Your task to perform on an android device: Go to battery settings Image 0: 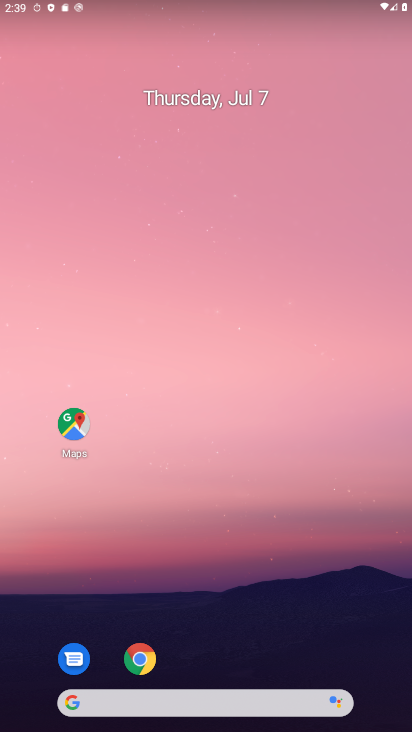
Step 0: drag from (7, 713) to (194, 53)
Your task to perform on an android device: Go to battery settings Image 1: 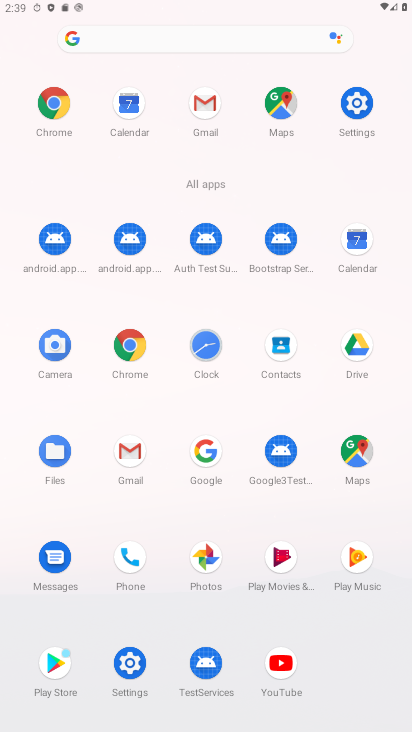
Step 1: click (149, 655)
Your task to perform on an android device: Go to battery settings Image 2: 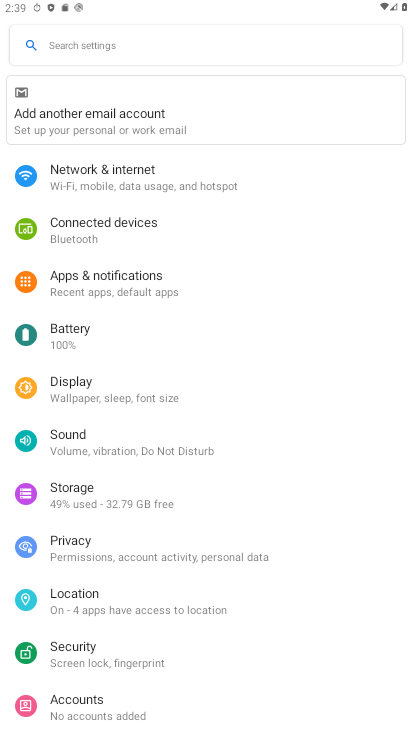
Step 2: click (103, 344)
Your task to perform on an android device: Go to battery settings Image 3: 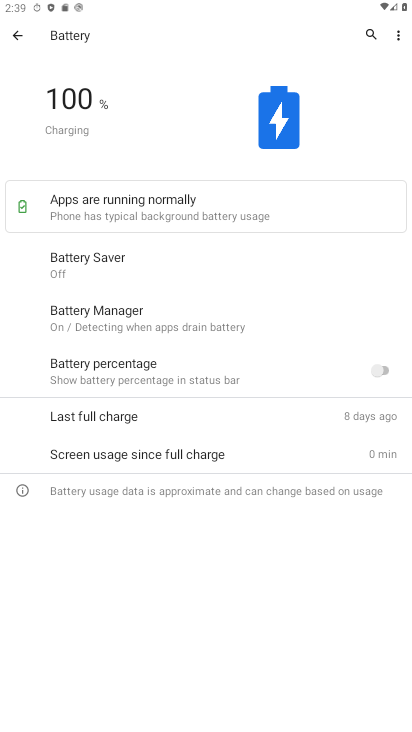
Step 3: task complete